Your task to perform on an android device: Toggle the flashlight Image 0: 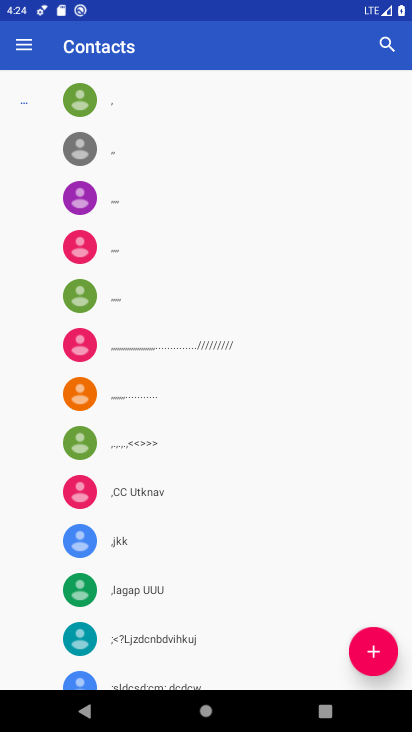
Step 0: press home button
Your task to perform on an android device: Toggle the flashlight Image 1: 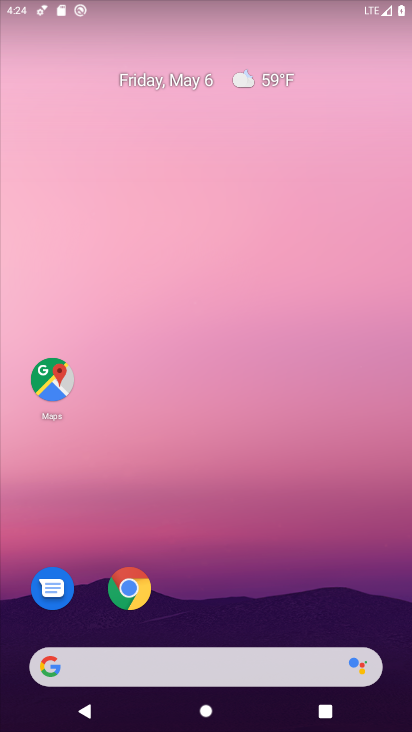
Step 1: drag from (223, 723) to (222, 308)
Your task to perform on an android device: Toggle the flashlight Image 2: 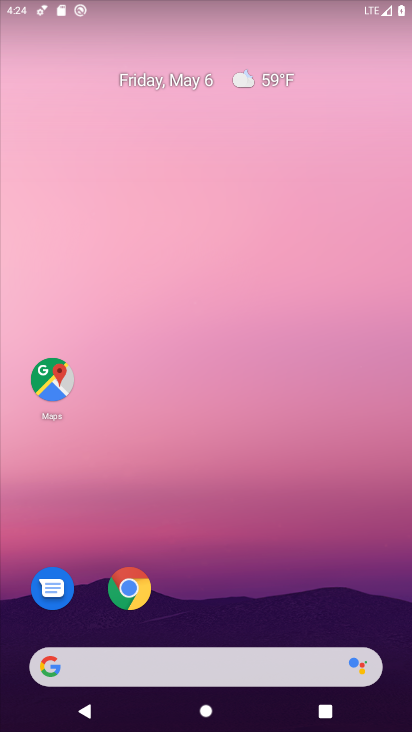
Step 2: drag from (221, 724) to (221, 150)
Your task to perform on an android device: Toggle the flashlight Image 3: 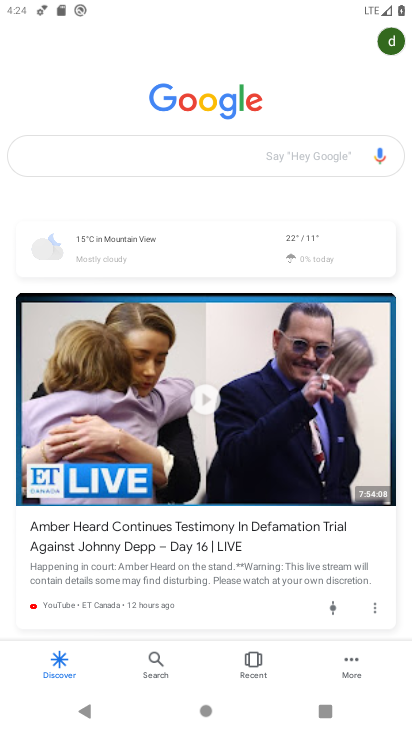
Step 3: press home button
Your task to perform on an android device: Toggle the flashlight Image 4: 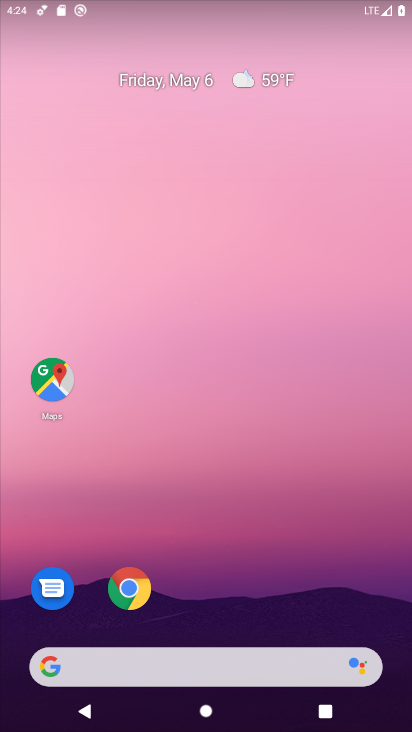
Step 4: drag from (238, 723) to (236, 230)
Your task to perform on an android device: Toggle the flashlight Image 5: 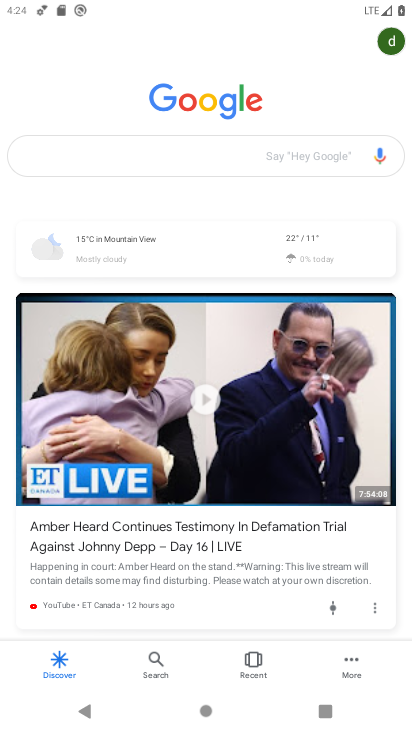
Step 5: press home button
Your task to perform on an android device: Toggle the flashlight Image 6: 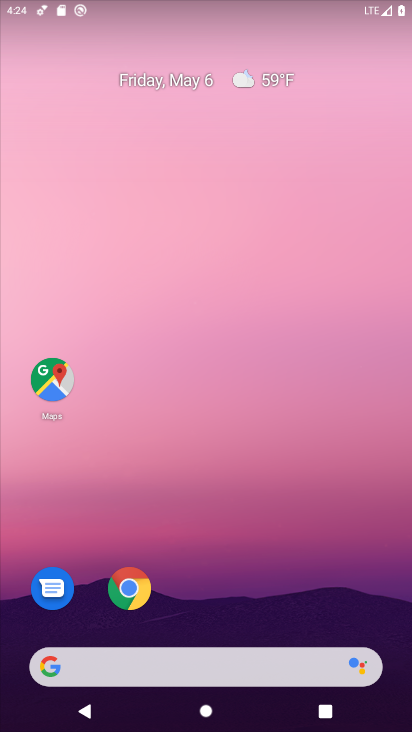
Step 6: drag from (221, 721) to (228, 287)
Your task to perform on an android device: Toggle the flashlight Image 7: 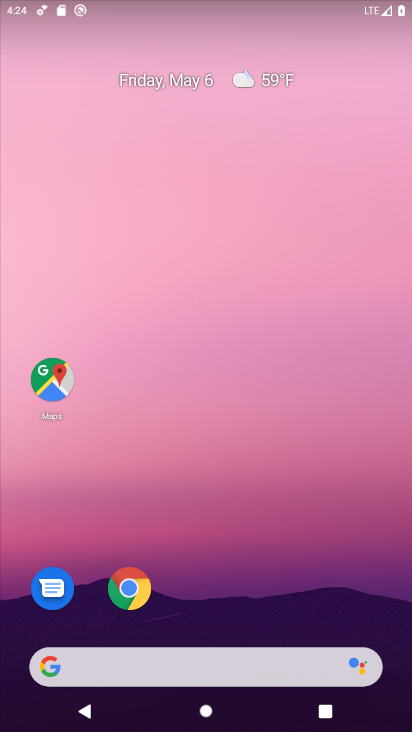
Step 7: drag from (224, 727) to (226, 217)
Your task to perform on an android device: Toggle the flashlight Image 8: 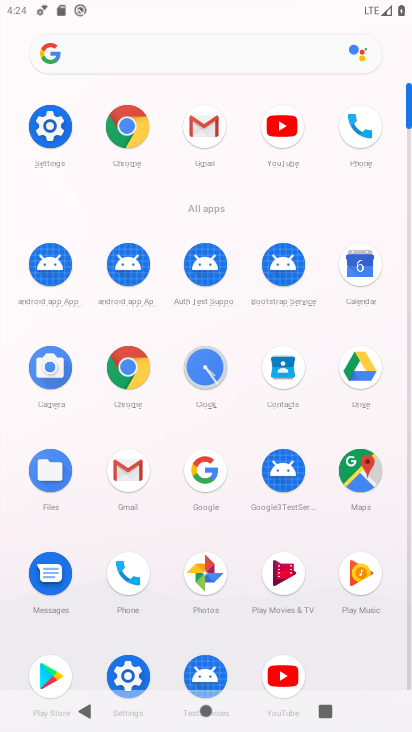
Step 8: click (50, 128)
Your task to perform on an android device: Toggle the flashlight Image 9: 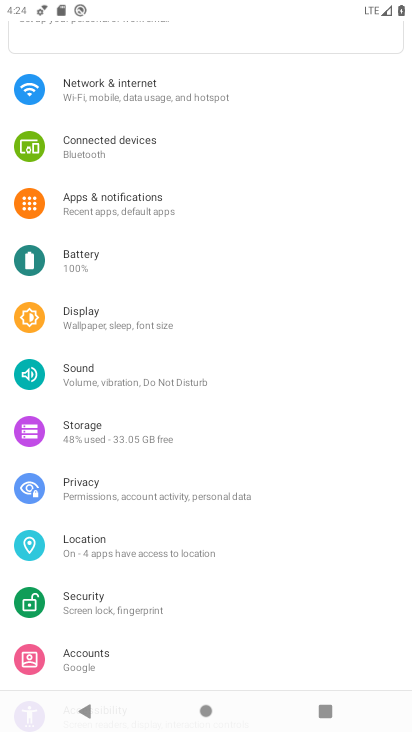
Step 9: task complete